Your task to perform on an android device: turn on airplane mode Image 0: 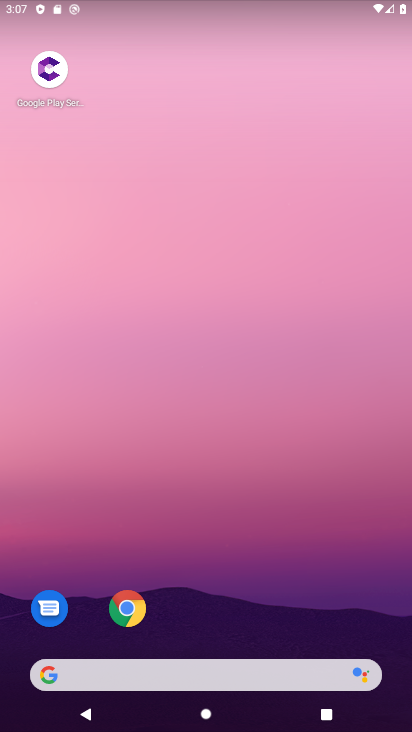
Step 0: drag from (255, 451) to (228, 173)
Your task to perform on an android device: turn on airplane mode Image 1: 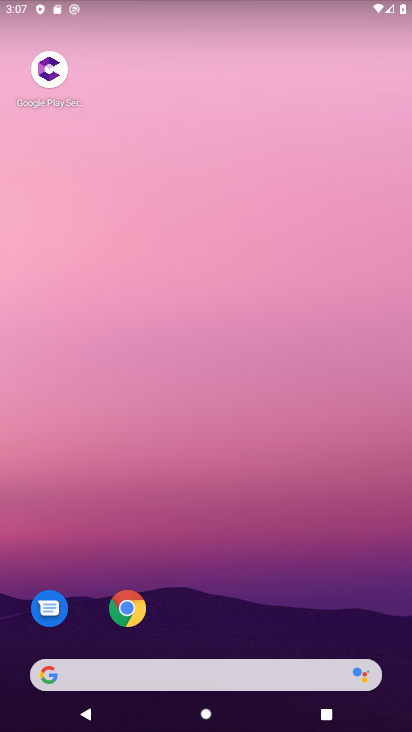
Step 1: drag from (208, 619) to (283, 104)
Your task to perform on an android device: turn on airplane mode Image 2: 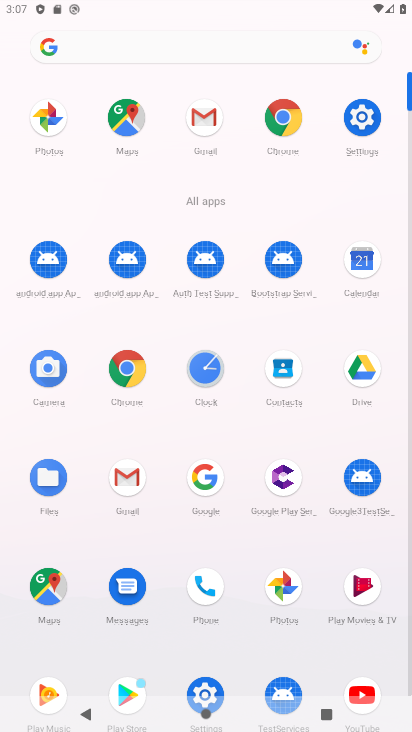
Step 2: click (365, 120)
Your task to perform on an android device: turn on airplane mode Image 3: 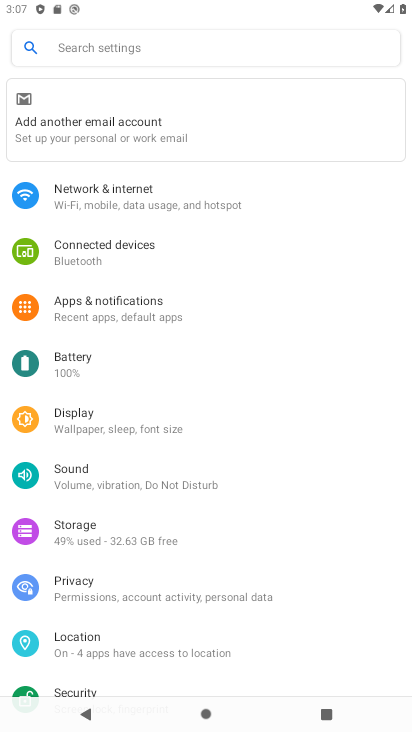
Step 3: click (312, 196)
Your task to perform on an android device: turn on airplane mode Image 4: 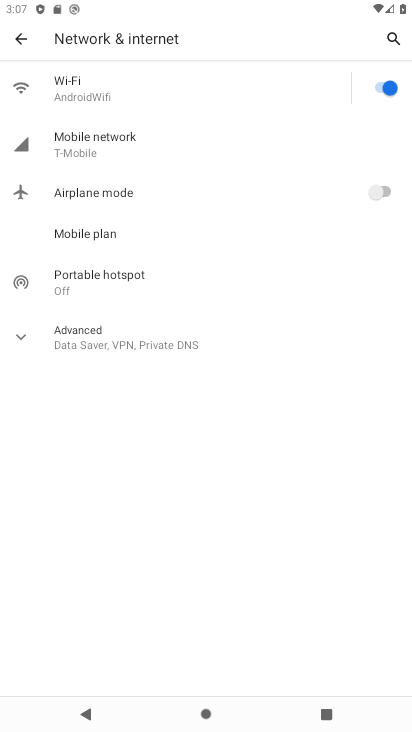
Step 4: click (378, 197)
Your task to perform on an android device: turn on airplane mode Image 5: 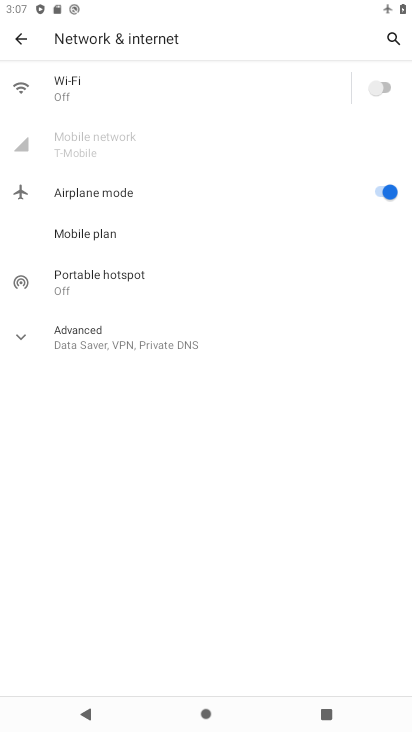
Step 5: task complete